Your task to perform on an android device: Open the map Image 0: 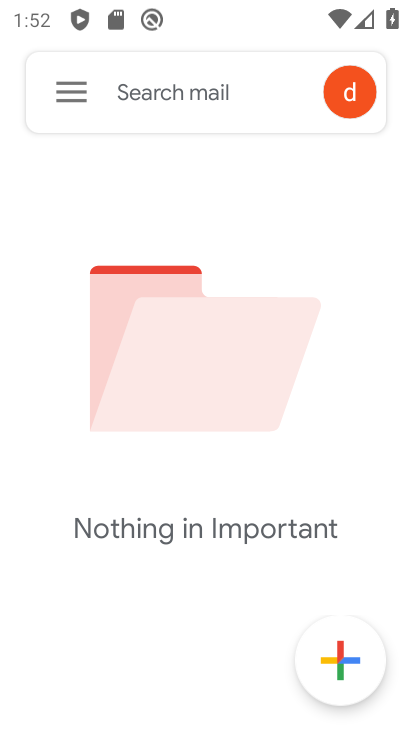
Step 0: press home button
Your task to perform on an android device: Open the map Image 1: 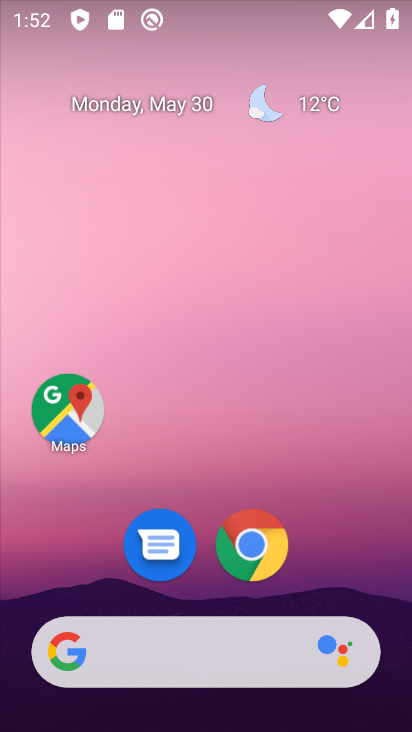
Step 1: click (66, 406)
Your task to perform on an android device: Open the map Image 2: 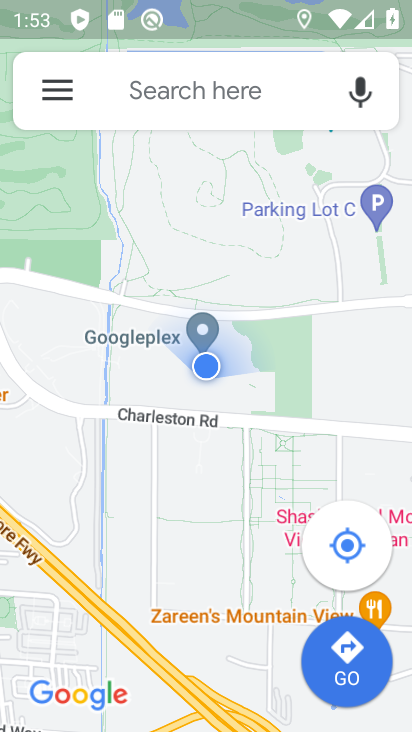
Step 2: task complete